Your task to perform on an android device: move an email to a new category in the gmail app Image 0: 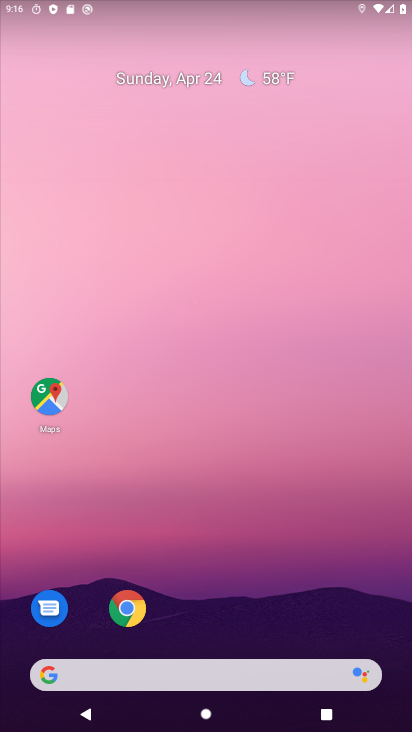
Step 0: drag from (372, 605) to (373, 118)
Your task to perform on an android device: move an email to a new category in the gmail app Image 1: 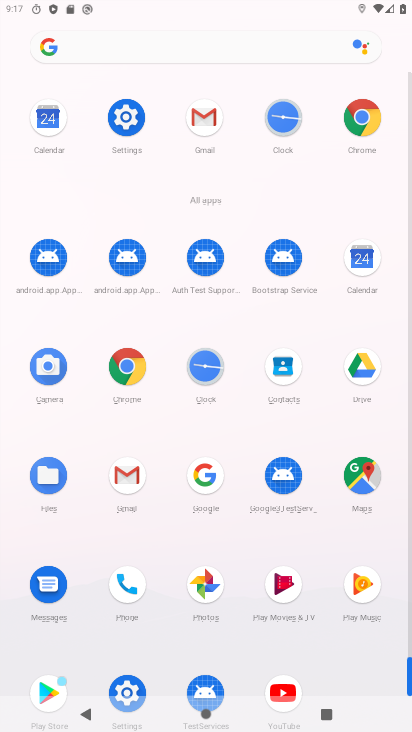
Step 1: click (195, 116)
Your task to perform on an android device: move an email to a new category in the gmail app Image 2: 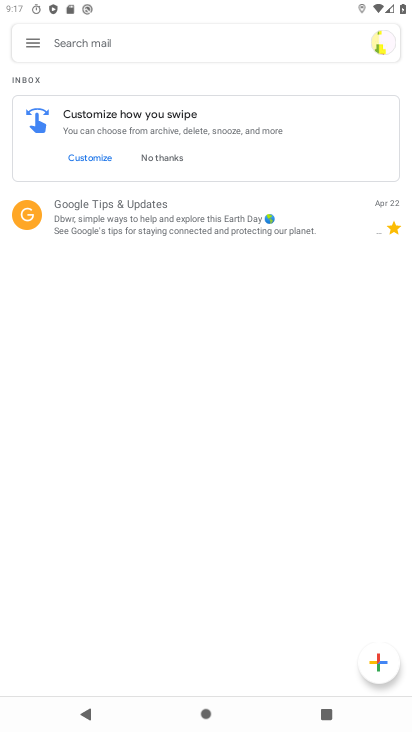
Step 2: click (24, 34)
Your task to perform on an android device: move an email to a new category in the gmail app Image 3: 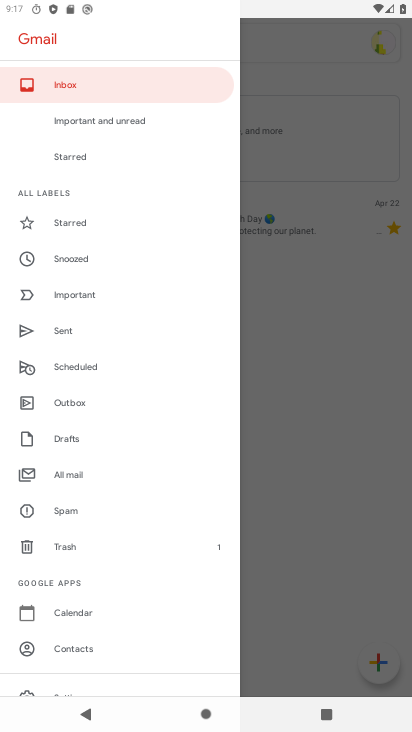
Step 3: click (113, 91)
Your task to perform on an android device: move an email to a new category in the gmail app Image 4: 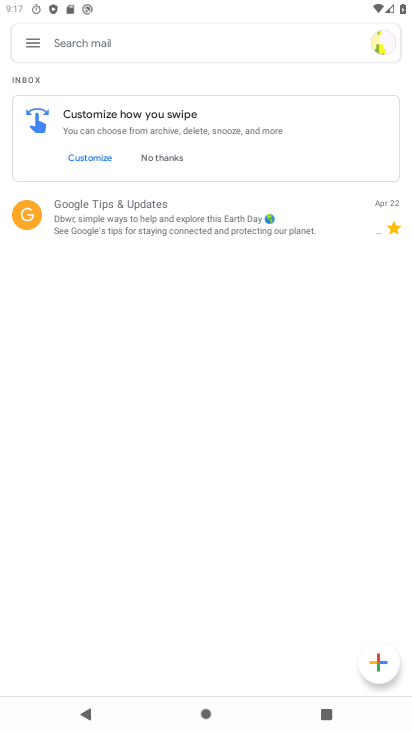
Step 4: click (169, 197)
Your task to perform on an android device: move an email to a new category in the gmail app Image 5: 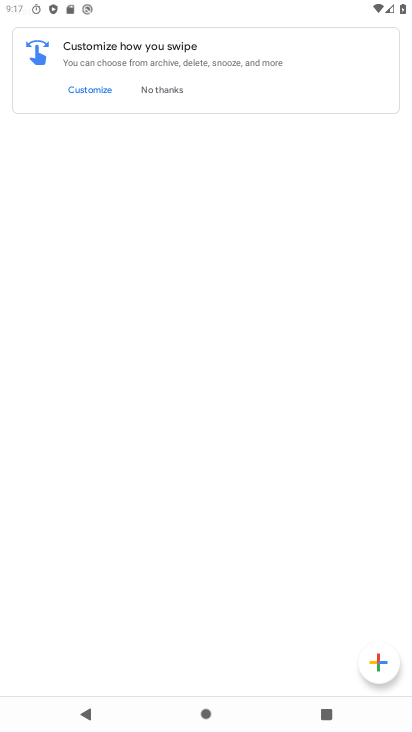
Step 5: task complete